Your task to perform on an android device: open device folders in google photos Image 0: 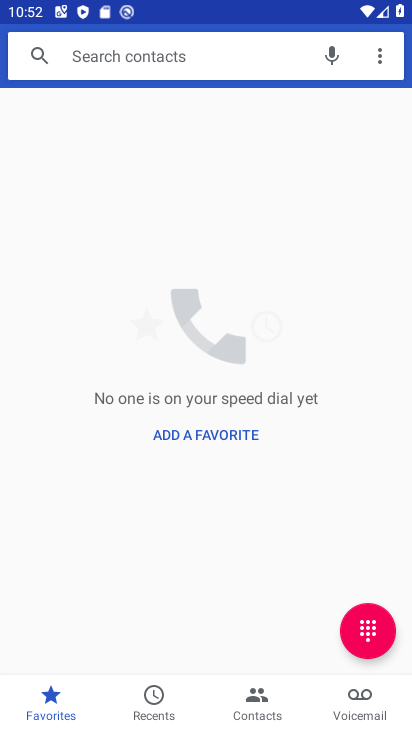
Step 0: press back button
Your task to perform on an android device: open device folders in google photos Image 1: 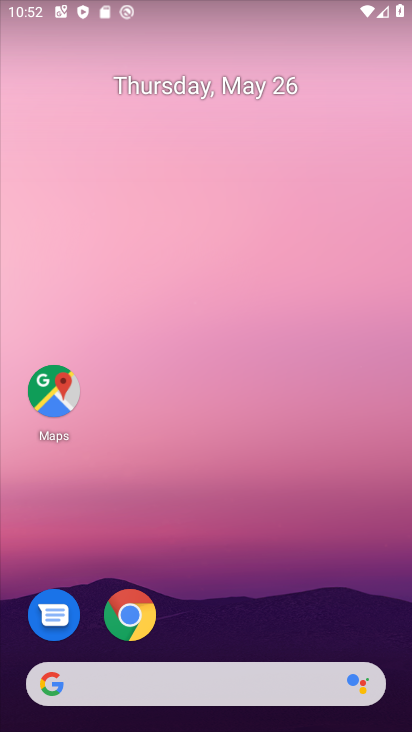
Step 1: drag from (284, 445) to (289, 190)
Your task to perform on an android device: open device folders in google photos Image 2: 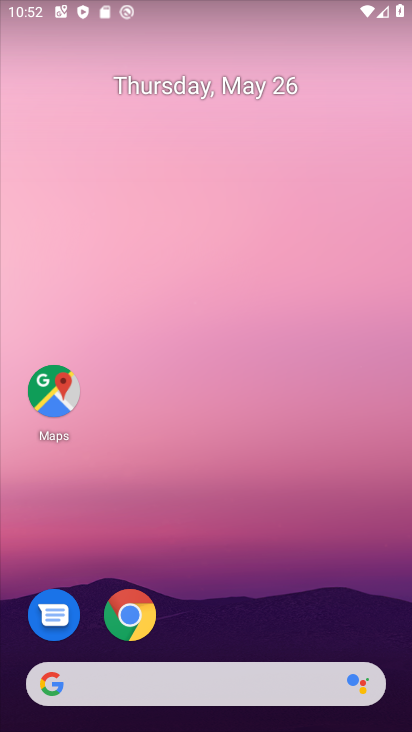
Step 2: drag from (288, 518) to (306, 74)
Your task to perform on an android device: open device folders in google photos Image 3: 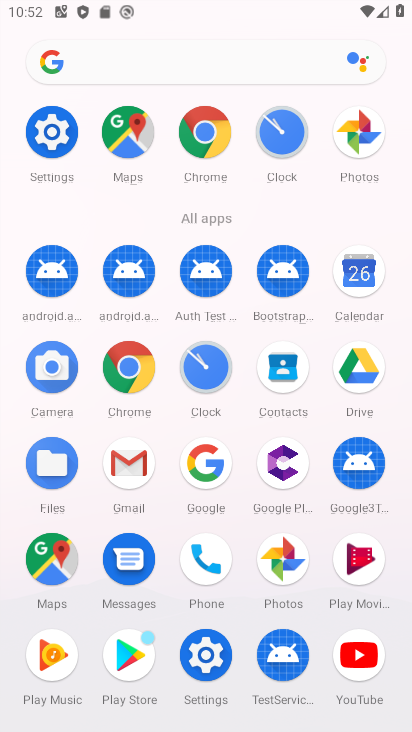
Step 3: click (288, 560)
Your task to perform on an android device: open device folders in google photos Image 4: 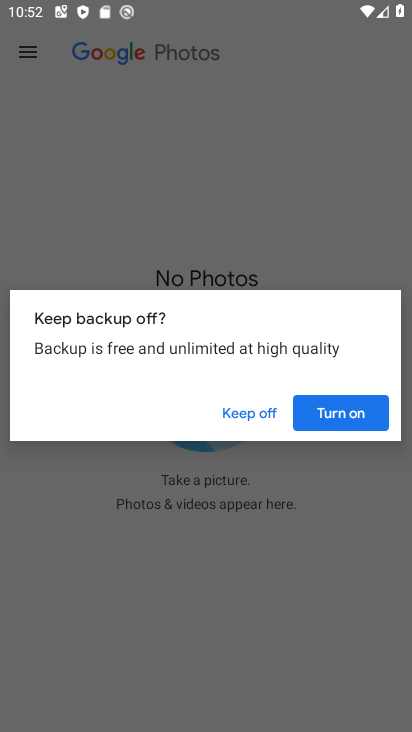
Step 4: click (246, 409)
Your task to perform on an android device: open device folders in google photos Image 5: 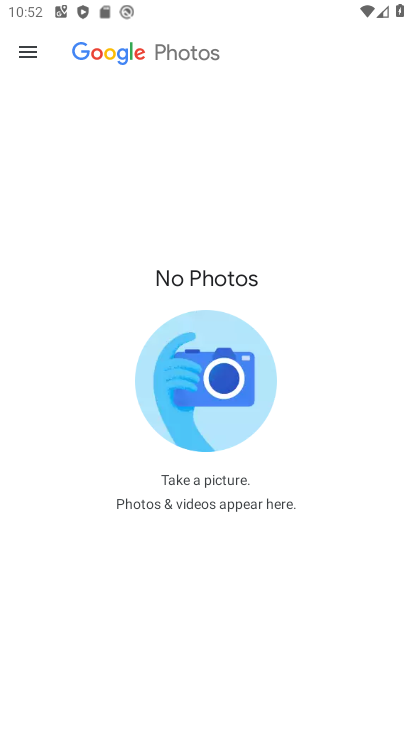
Step 5: click (37, 47)
Your task to perform on an android device: open device folders in google photos Image 6: 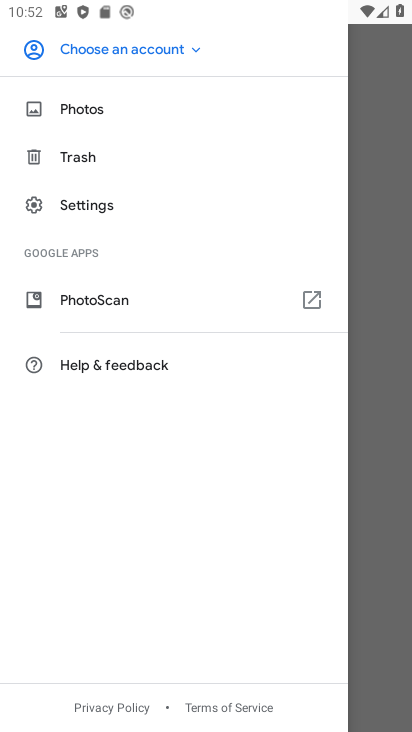
Step 6: task complete